Your task to perform on an android device: Set the phone to "Do not disturb". Image 0: 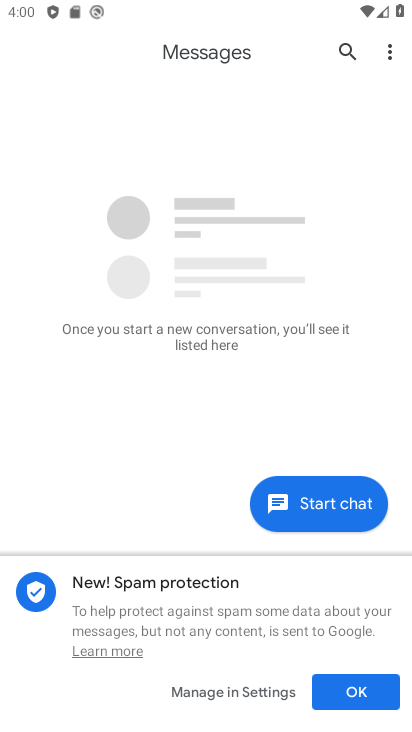
Step 0: press home button
Your task to perform on an android device: Set the phone to "Do not disturb". Image 1: 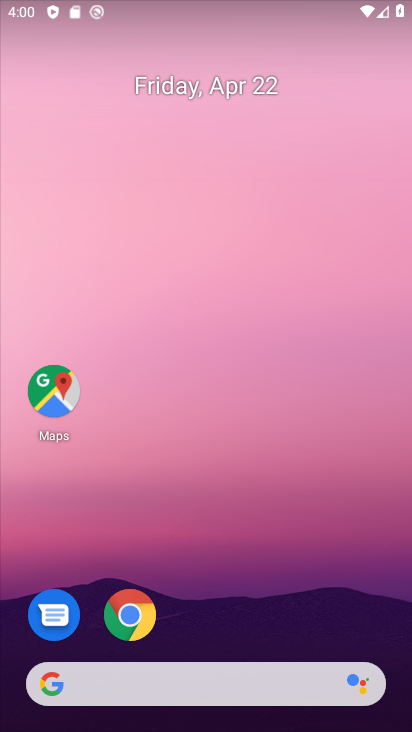
Step 1: drag from (273, 575) to (313, 76)
Your task to perform on an android device: Set the phone to "Do not disturb". Image 2: 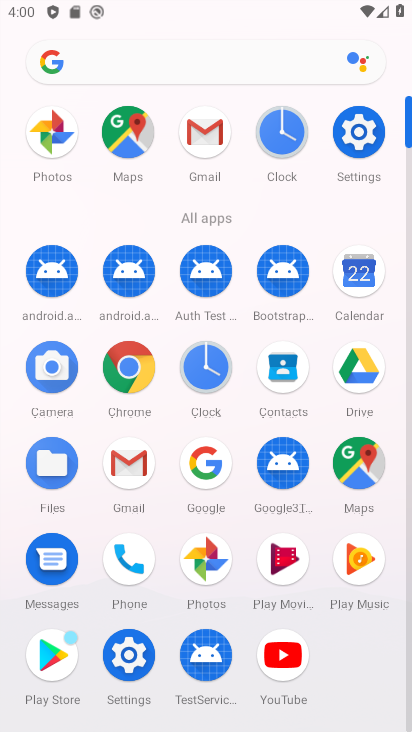
Step 2: drag from (265, 9) to (325, 665)
Your task to perform on an android device: Set the phone to "Do not disturb". Image 3: 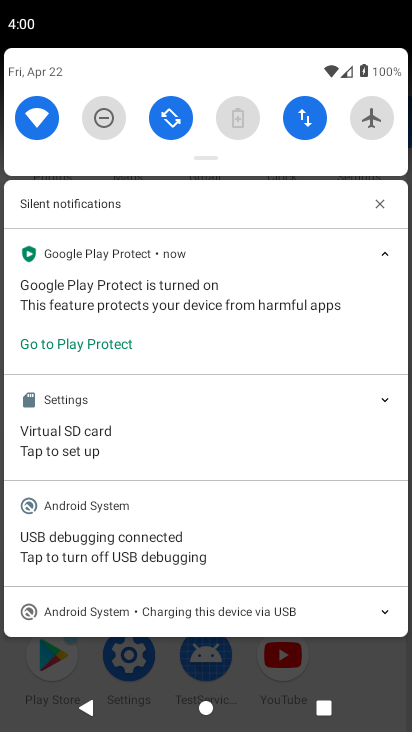
Step 3: click (101, 114)
Your task to perform on an android device: Set the phone to "Do not disturb". Image 4: 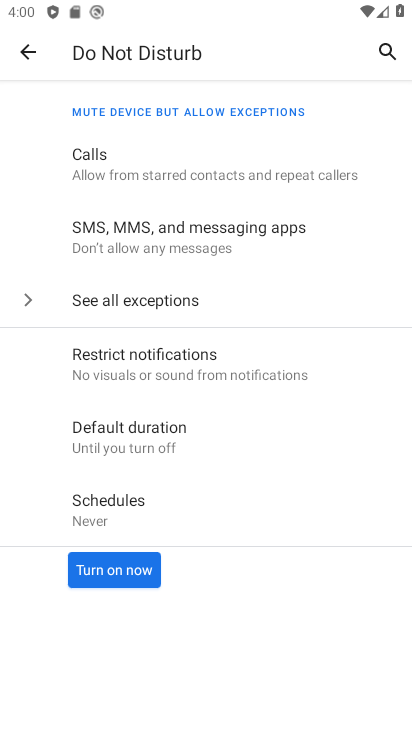
Step 4: click (99, 576)
Your task to perform on an android device: Set the phone to "Do not disturb". Image 5: 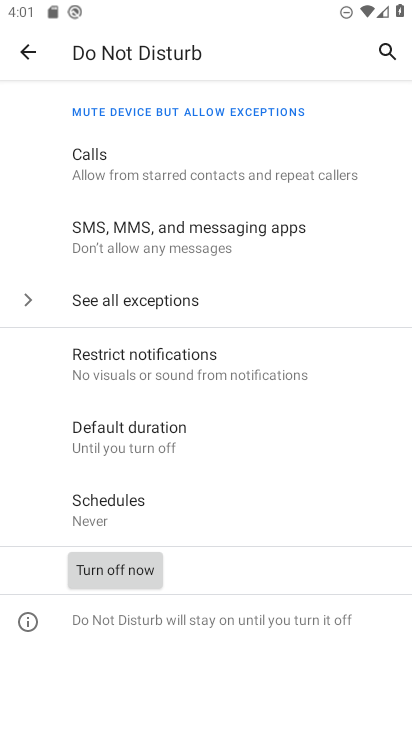
Step 5: task complete